Your task to perform on an android device: Go to ESPN.com Image 0: 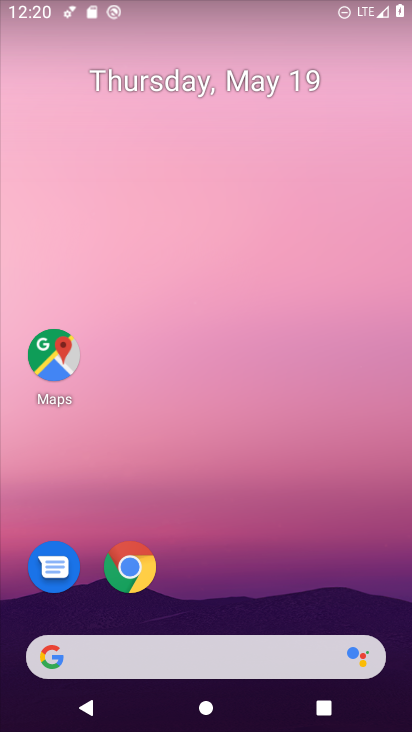
Step 0: click (255, 646)
Your task to perform on an android device: Go to ESPN.com Image 1: 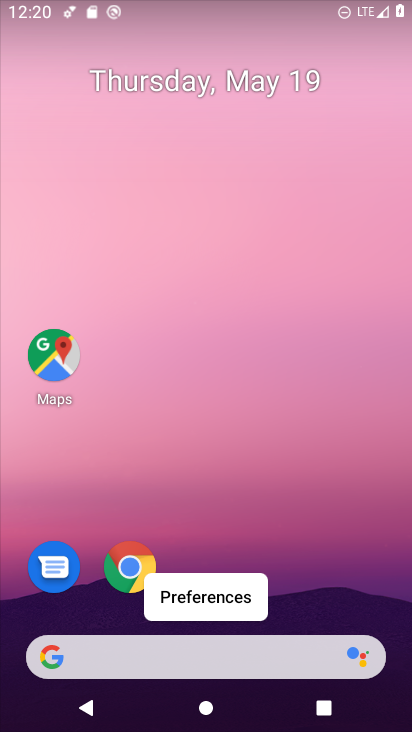
Step 1: click (258, 658)
Your task to perform on an android device: Go to ESPN.com Image 2: 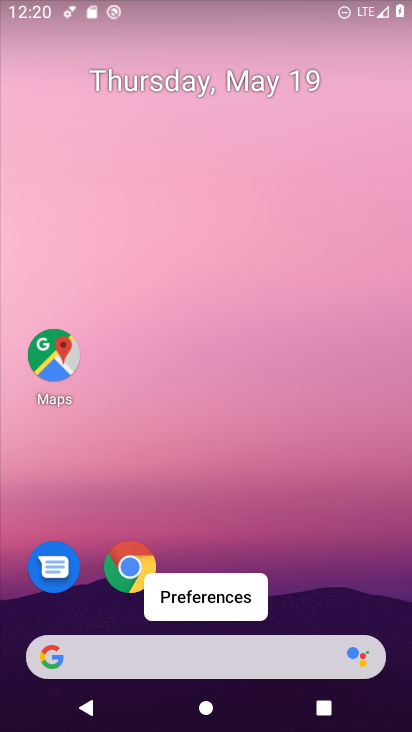
Step 2: click (258, 657)
Your task to perform on an android device: Go to ESPN.com Image 3: 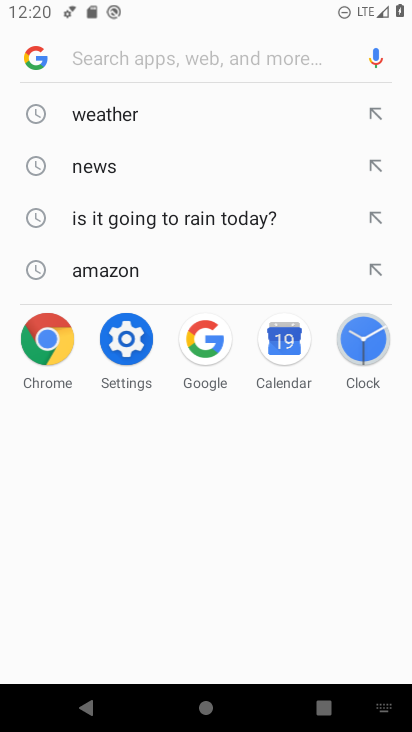
Step 3: type "espn.com"
Your task to perform on an android device: Go to ESPN.com Image 4: 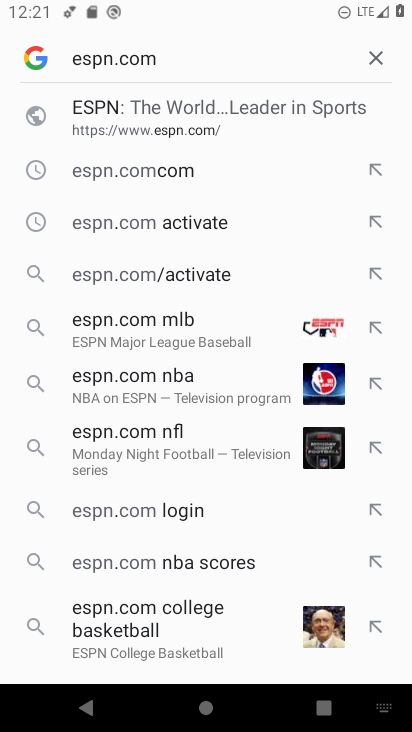
Step 4: click (165, 116)
Your task to perform on an android device: Go to ESPN.com Image 5: 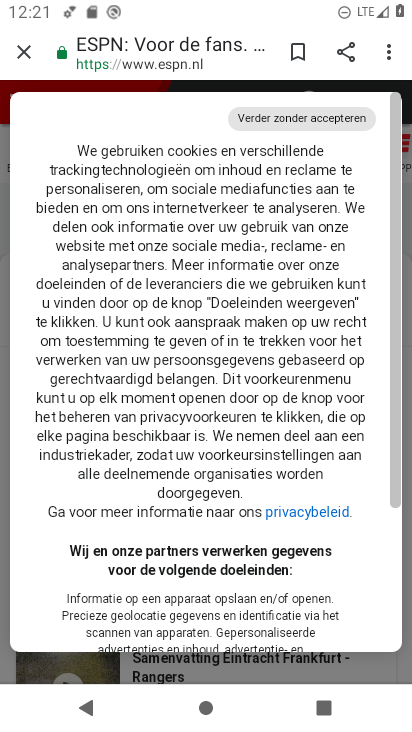
Step 5: task complete